Your task to perform on an android device: Open Google Maps Image 0: 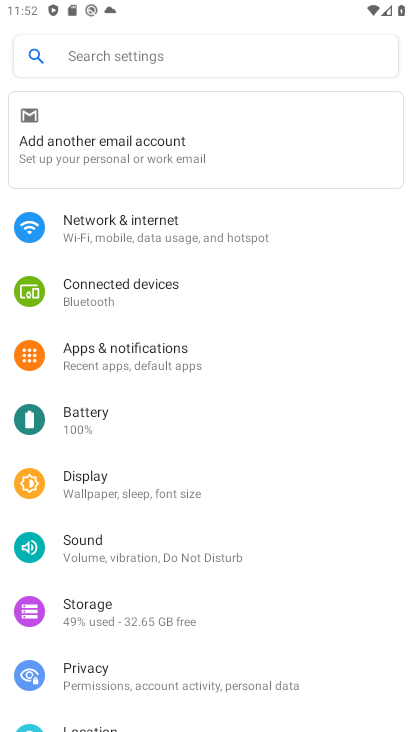
Step 0: press home button
Your task to perform on an android device: Open Google Maps Image 1: 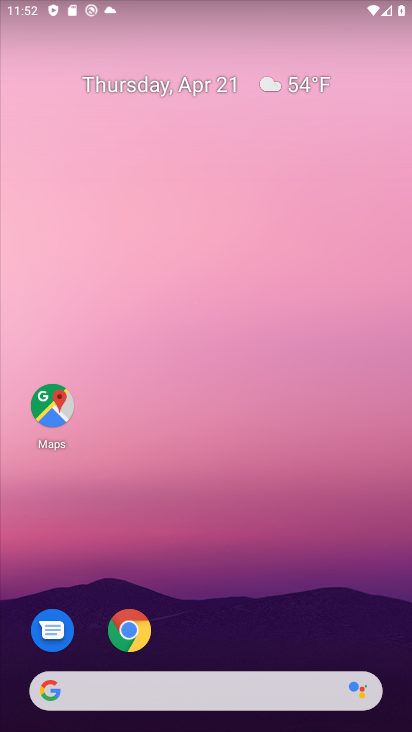
Step 1: click (50, 407)
Your task to perform on an android device: Open Google Maps Image 2: 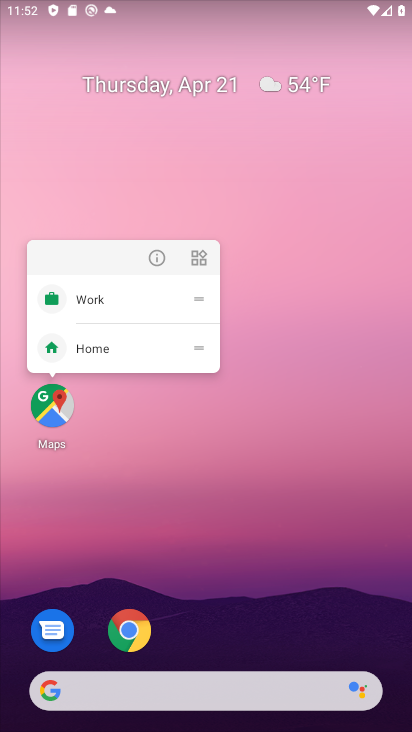
Step 2: click (50, 407)
Your task to perform on an android device: Open Google Maps Image 3: 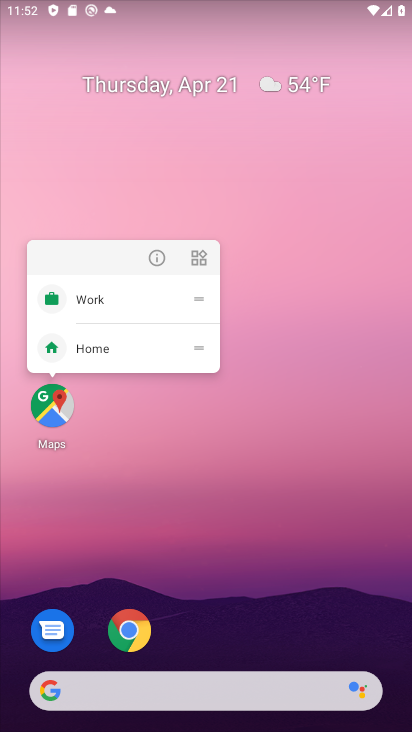
Step 3: click (53, 412)
Your task to perform on an android device: Open Google Maps Image 4: 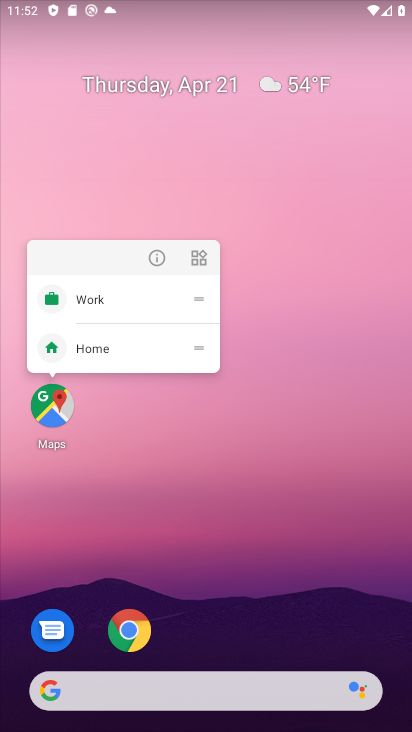
Step 4: click (62, 414)
Your task to perform on an android device: Open Google Maps Image 5: 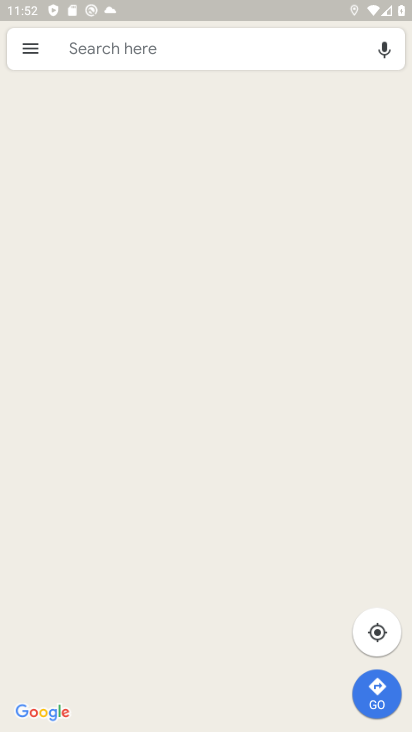
Step 5: task complete